Your task to perform on an android device: turn on the 24-hour format for clock Image 0: 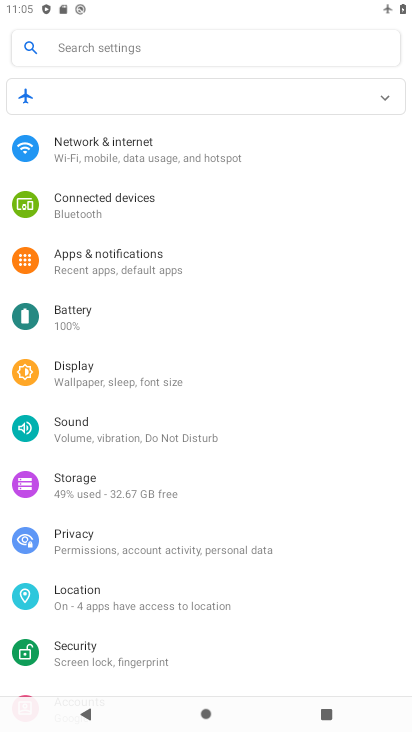
Step 0: press home button
Your task to perform on an android device: turn on the 24-hour format for clock Image 1: 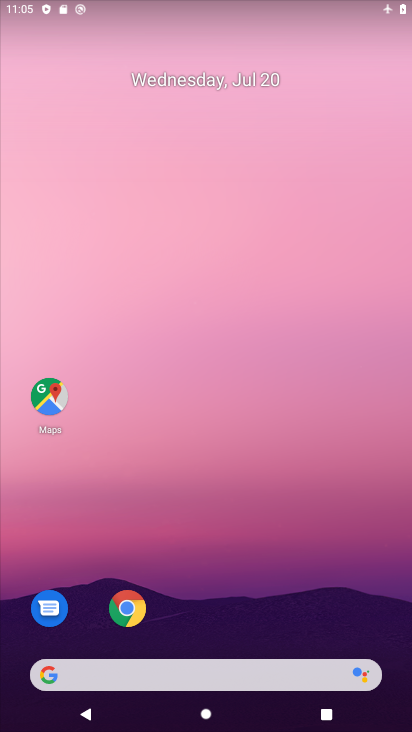
Step 1: drag from (340, 537) to (207, 72)
Your task to perform on an android device: turn on the 24-hour format for clock Image 2: 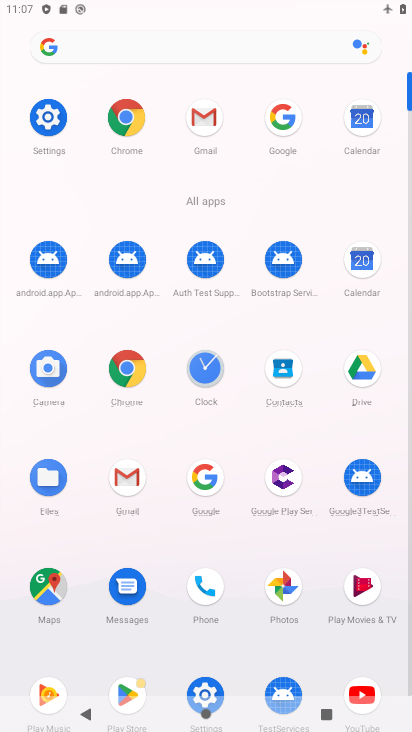
Step 2: click (204, 371)
Your task to perform on an android device: turn on the 24-hour format for clock Image 3: 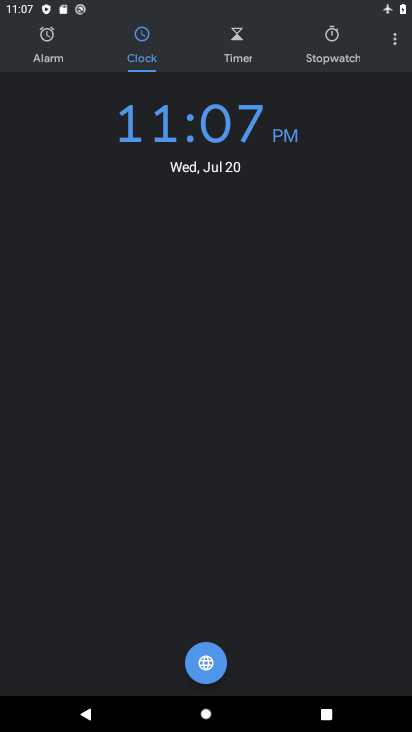
Step 3: click (392, 38)
Your task to perform on an android device: turn on the 24-hour format for clock Image 4: 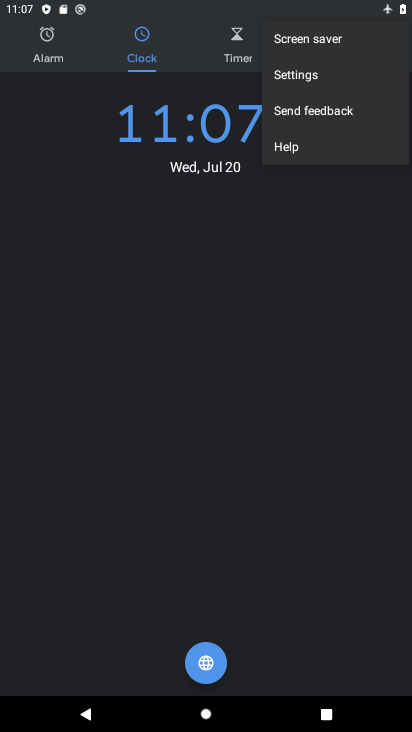
Step 4: click (308, 77)
Your task to perform on an android device: turn on the 24-hour format for clock Image 5: 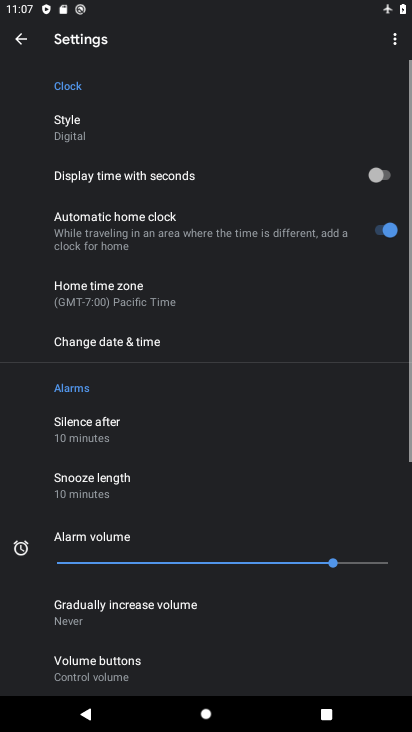
Step 5: click (92, 352)
Your task to perform on an android device: turn on the 24-hour format for clock Image 6: 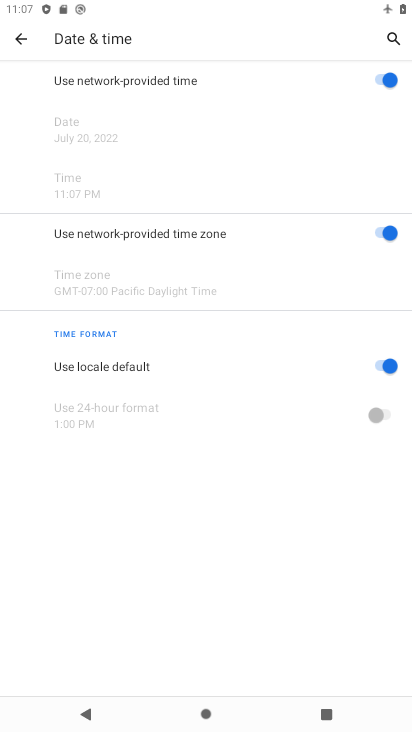
Step 6: task complete